Your task to perform on an android device: turn on improve location accuracy Image 0: 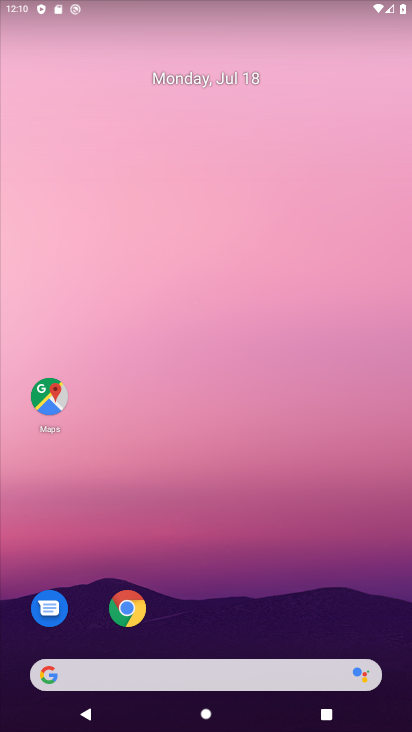
Step 0: drag from (267, 619) to (388, 86)
Your task to perform on an android device: turn on improve location accuracy Image 1: 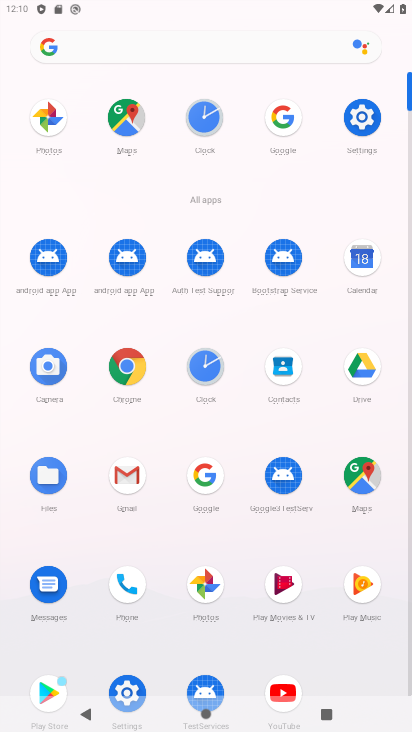
Step 1: click (351, 127)
Your task to perform on an android device: turn on improve location accuracy Image 2: 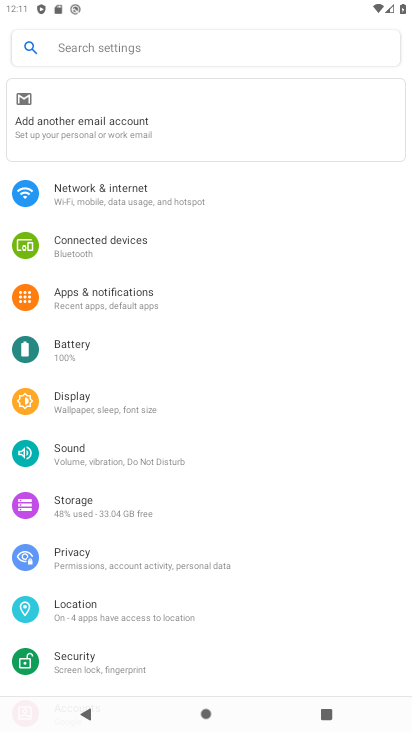
Step 2: click (98, 608)
Your task to perform on an android device: turn on improve location accuracy Image 3: 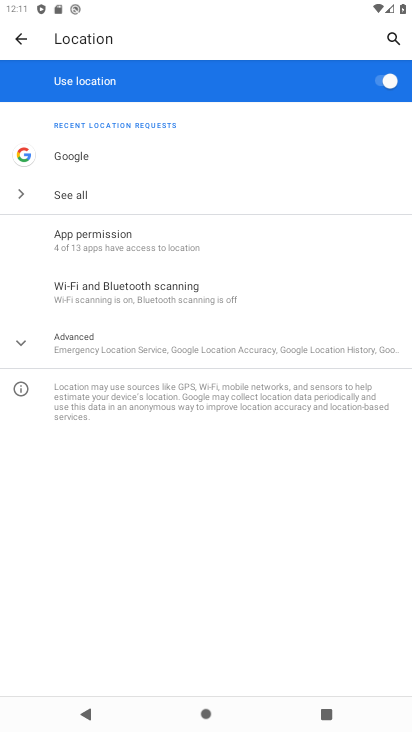
Step 3: click (168, 353)
Your task to perform on an android device: turn on improve location accuracy Image 4: 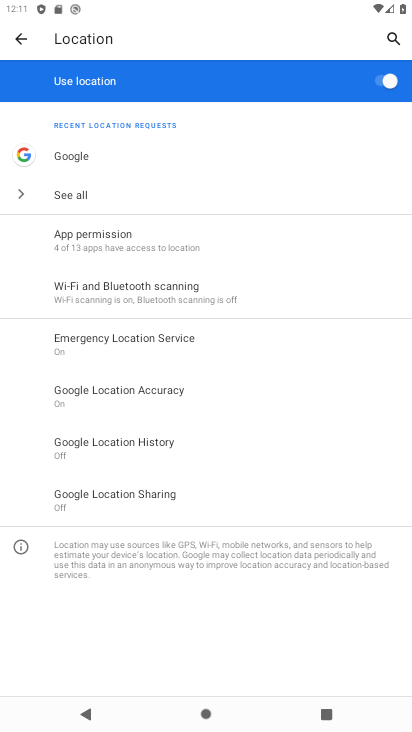
Step 4: click (173, 393)
Your task to perform on an android device: turn on improve location accuracy Image 5: 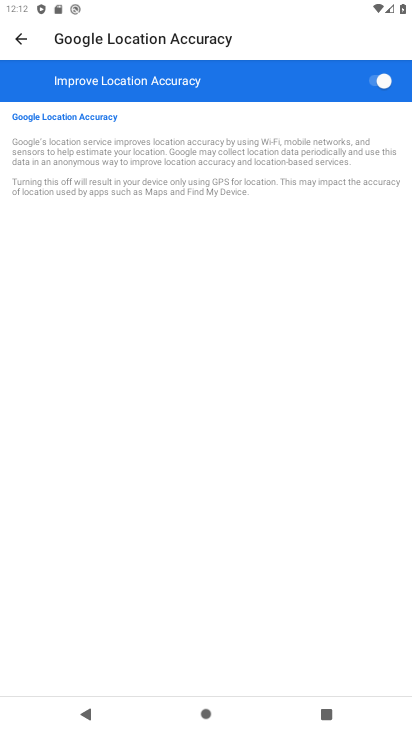
Step 5: task complete